Your task to perform on an android device: change the clock style Image 0: 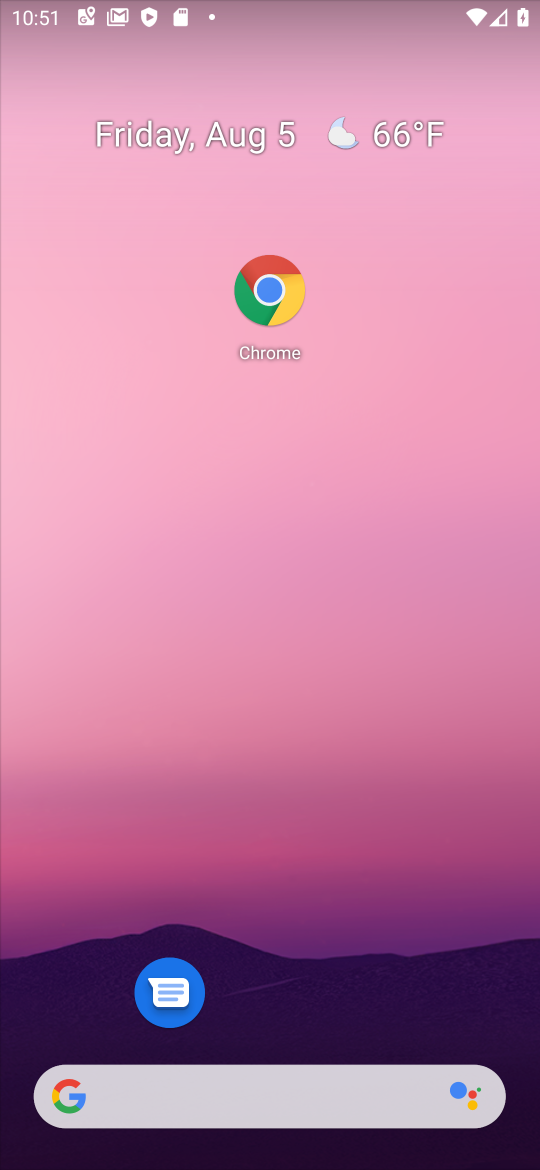
Step 0: drag from (271, 1079) to (23, 133)
Your task to perform on an android device: change the clock style Image 1: 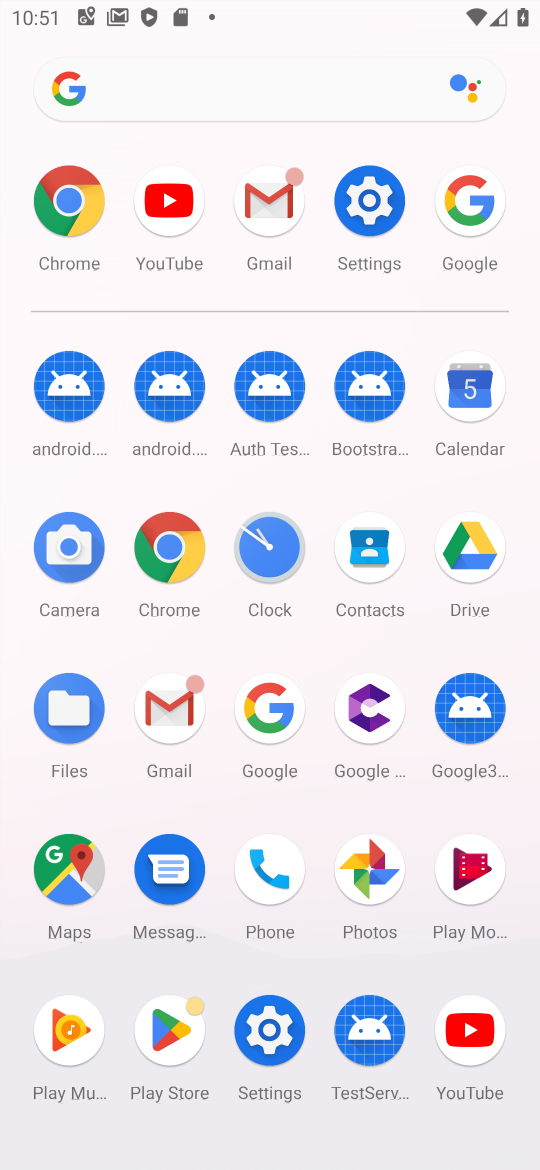
Step 1: click (255, 533)
Your task to perform on an android device: change the clock style Image 2: 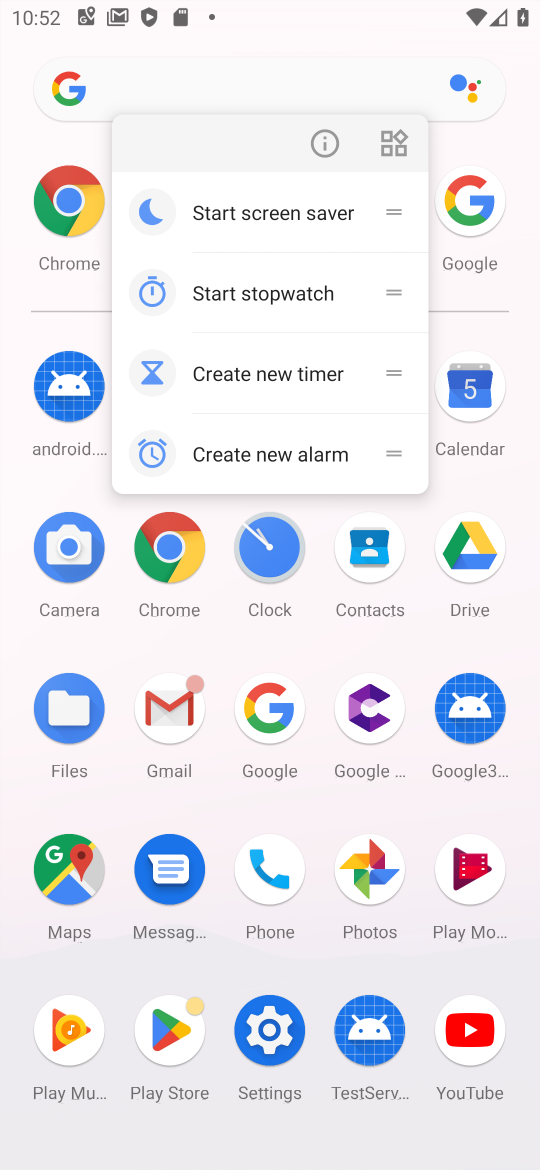
Step 2: click (255, 530)
Your task to perform on an android device: change the clock style Image 3: 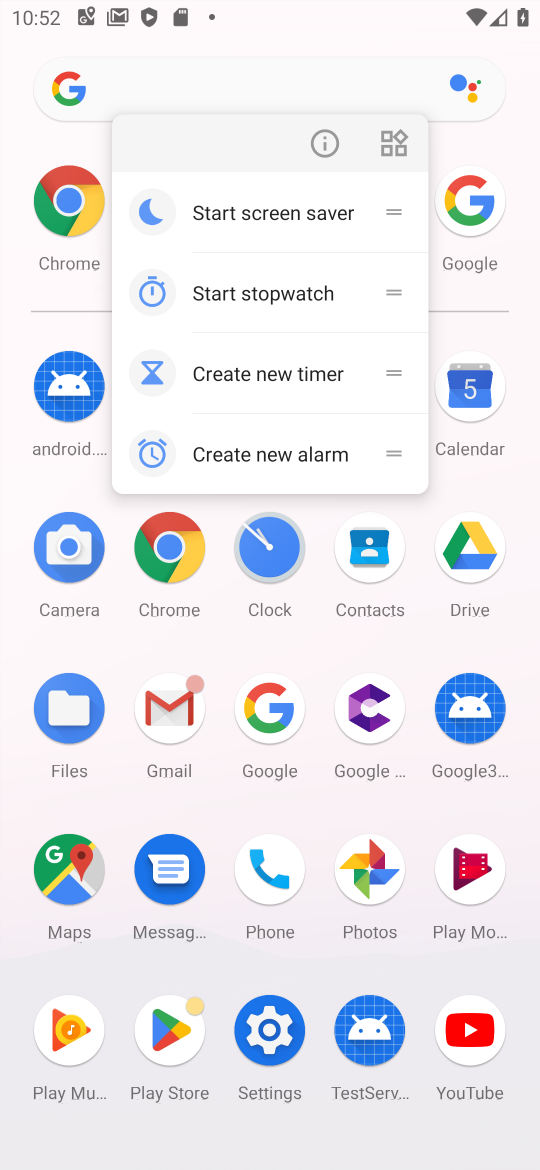
Step 3: click (255, 530)
Your task to perform on an android device: change the clock style Image 4: 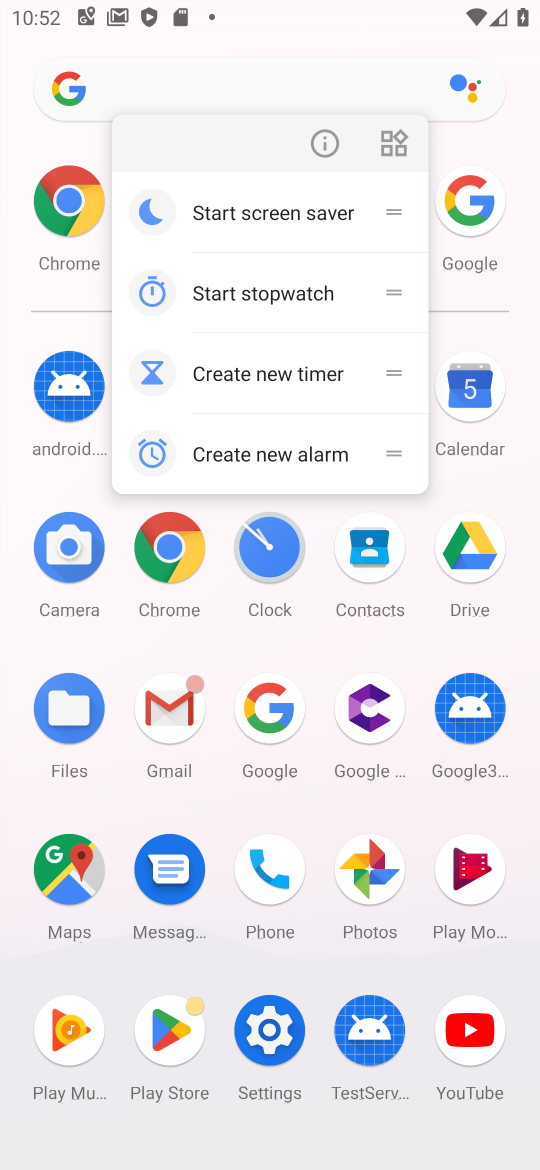
Step 4: click (255, 530)
Your task to perform on an android device: change the clock style Image 5: 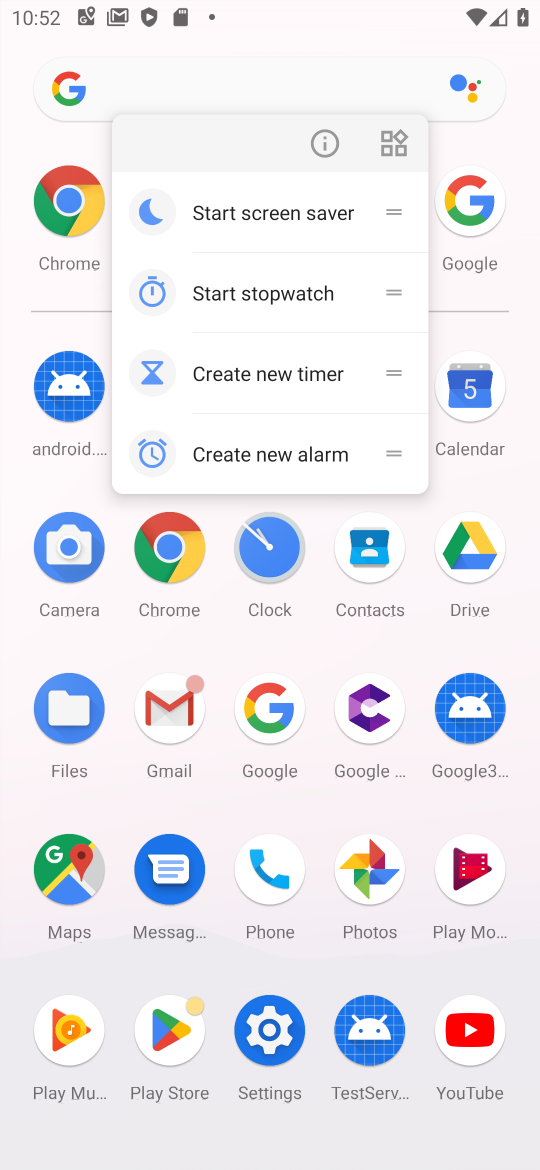
Step 5: click (257, 542)
Your task to perform on an android device: change the clock style Image 6: 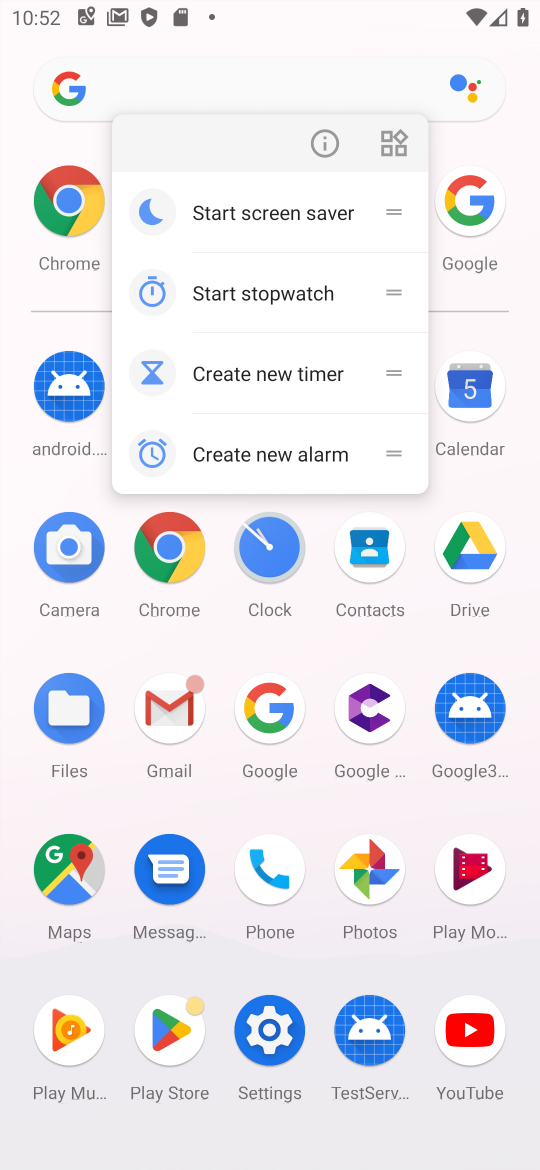
Step 6: click (257, 540)
Your task to perform on an android device: change the clock style Image 7: 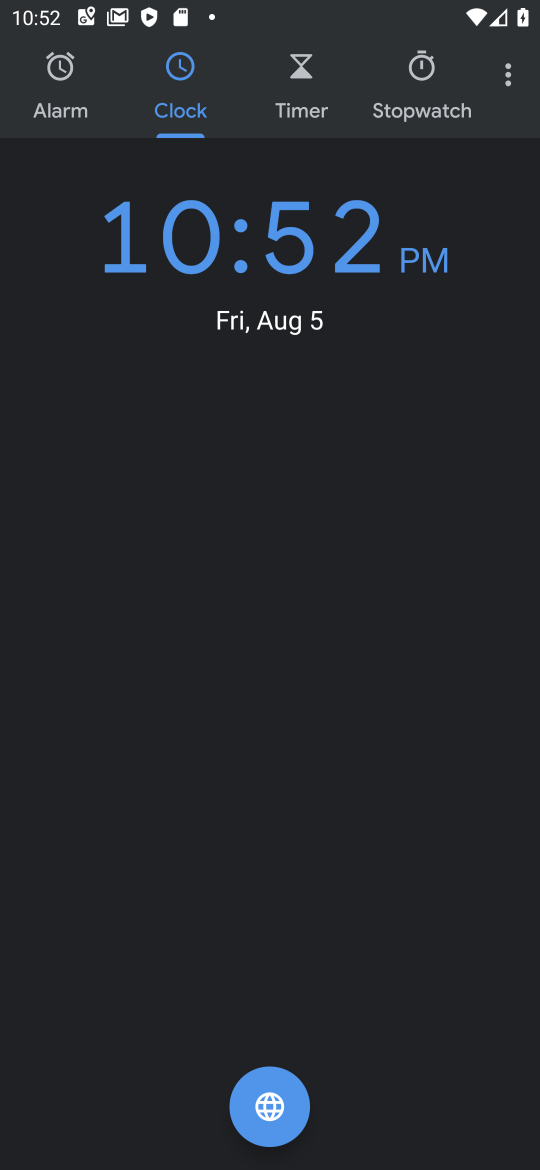
Step 7: click (512, 71)
Your task to perform on an android device: change the clock style Image 8: 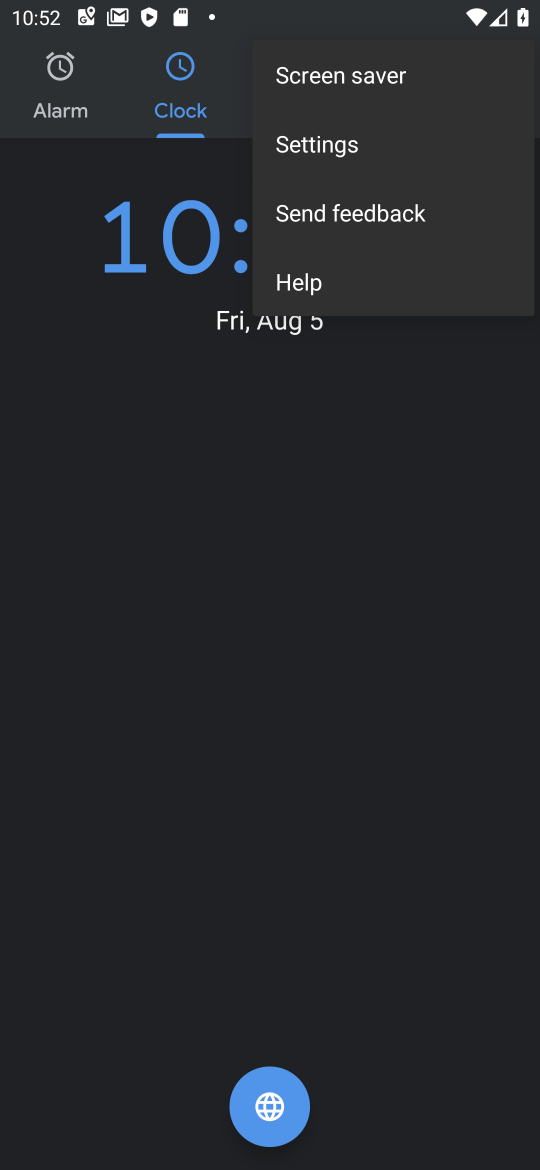
Step 8: click (324, 159)
Your task to perform on an android device: change the clock style Image 9: 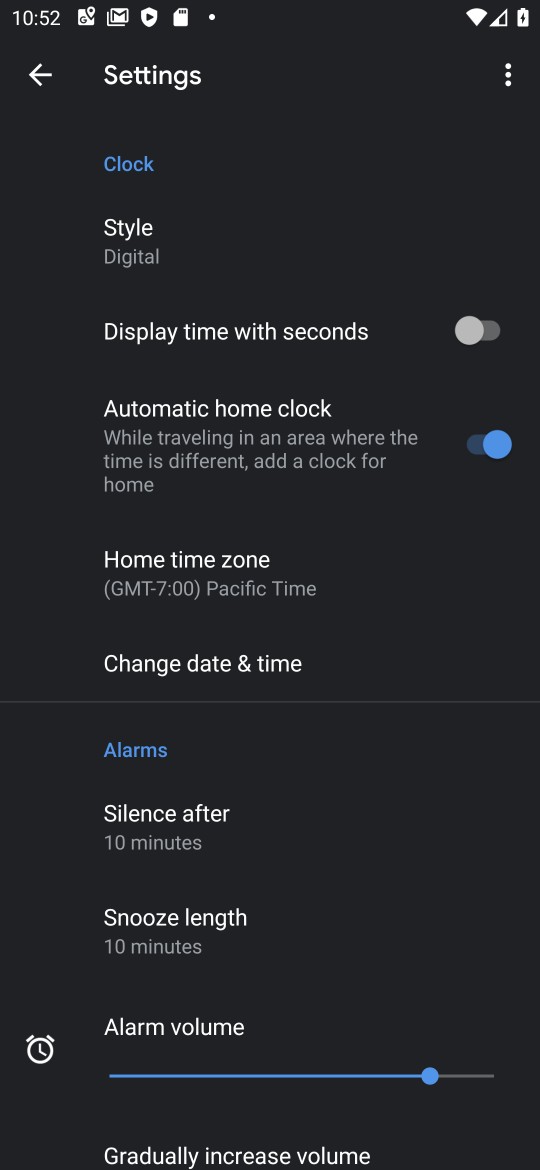
Step 9: click (164, 235)
Your task to perform on an android device: change the clock style Image 10: 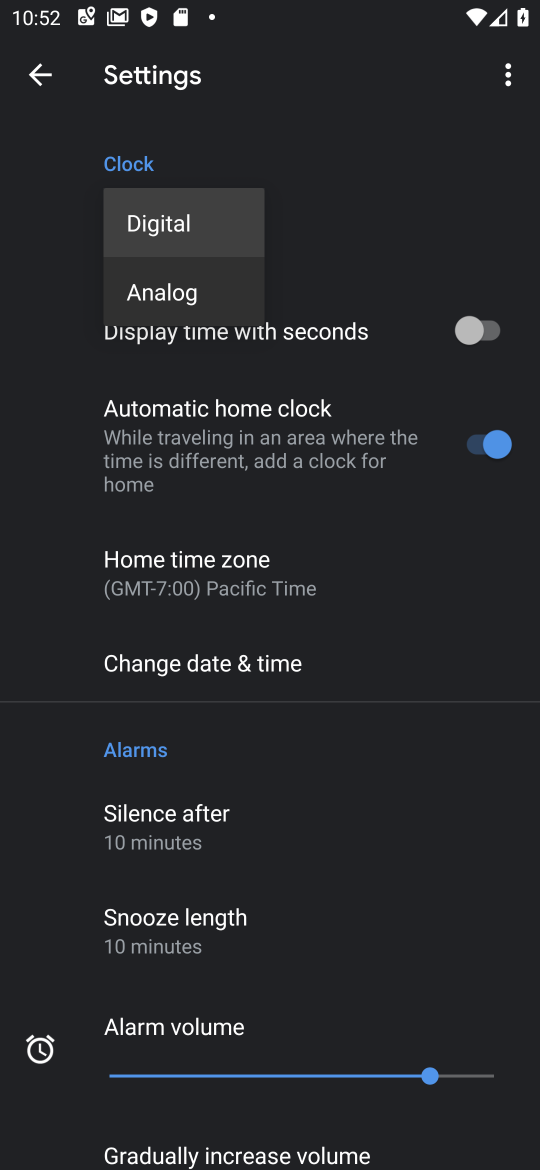
Step 10: click (161, 303)
Your task to perform on an android device: change the clock style Image 11: 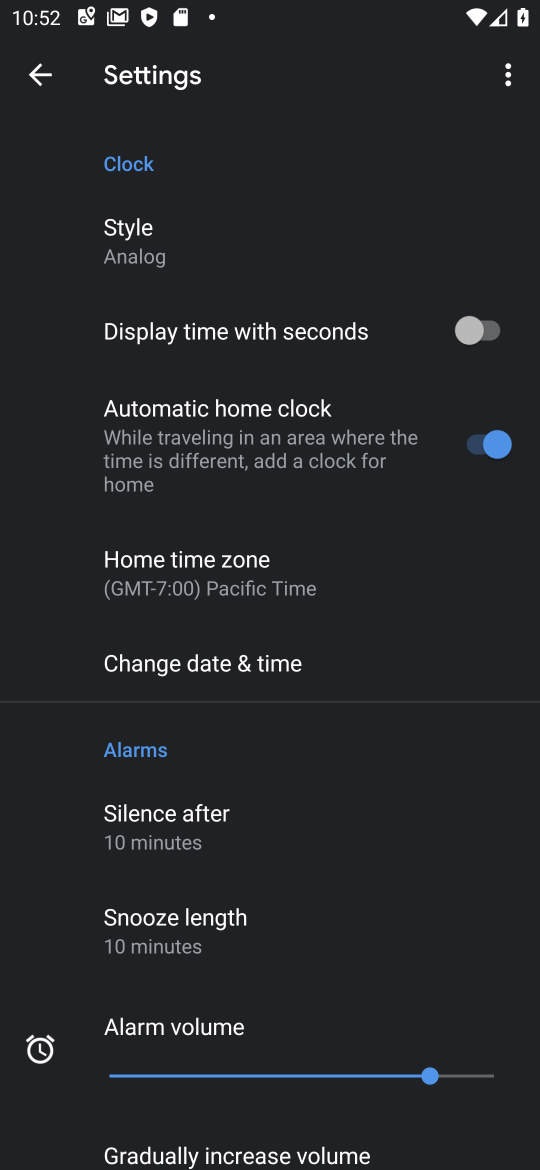
Step 11: task complete